Your task to perform on an android device: turn off airplane mode Image 0: 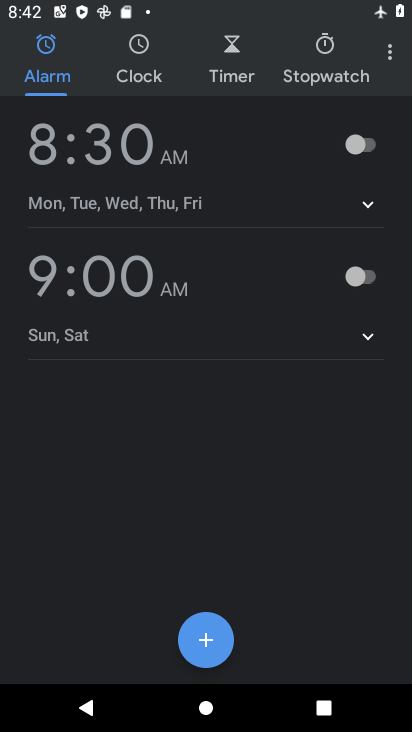
Step 0: press home button
Your task to perform on an android device: turn off airplane mode Image 1: 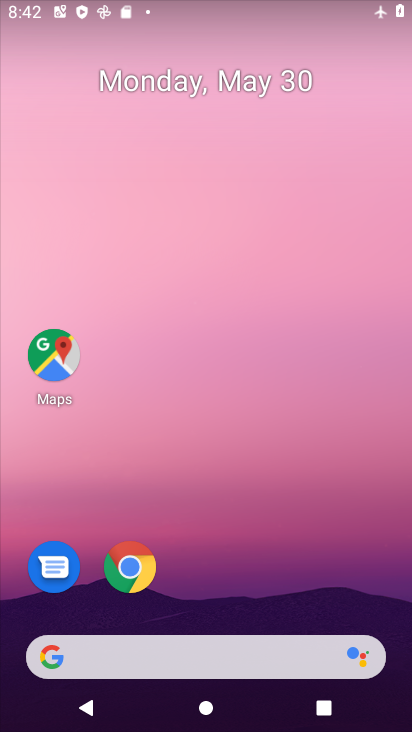
Step 1: drag from (336, 590) to (301, 189)
Your task to perform on an android device: turn off airplane mode Image 2: 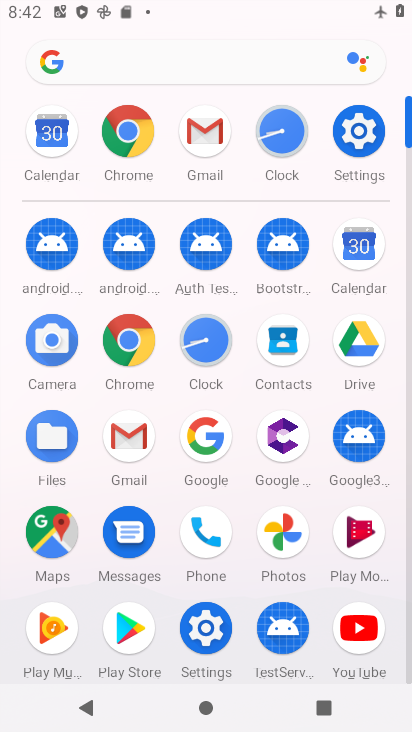
Step 2: click (351, 152)
Your task to perform on an android device: turn off airplane mode Image 3: 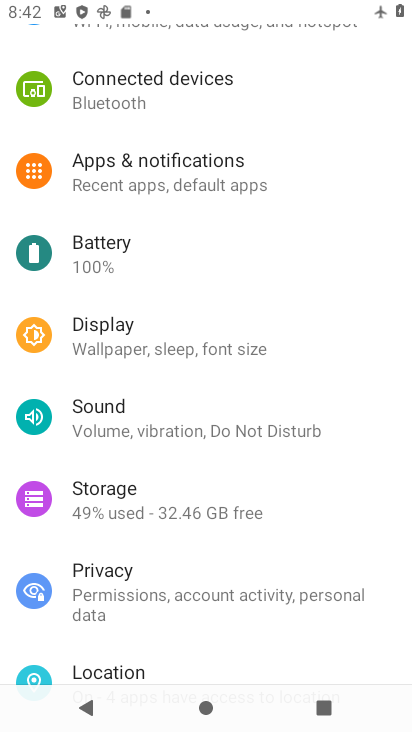
Step 3: task complete